Your task to perform on an android device: Go to battery settings Image 0: 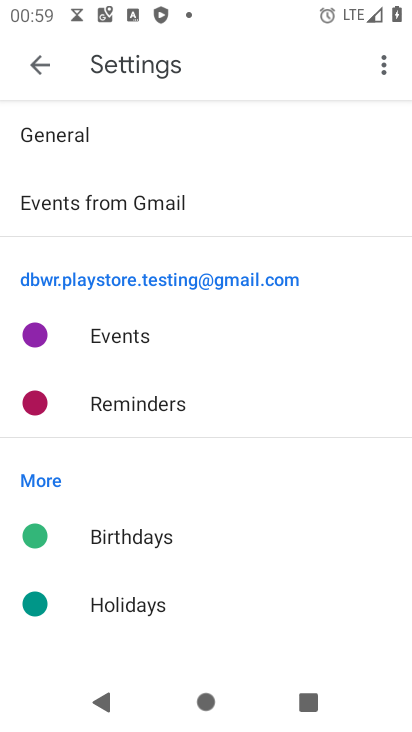
Step 0: press home button
Your task to perform on an android device: Go to battery settings Image 1: 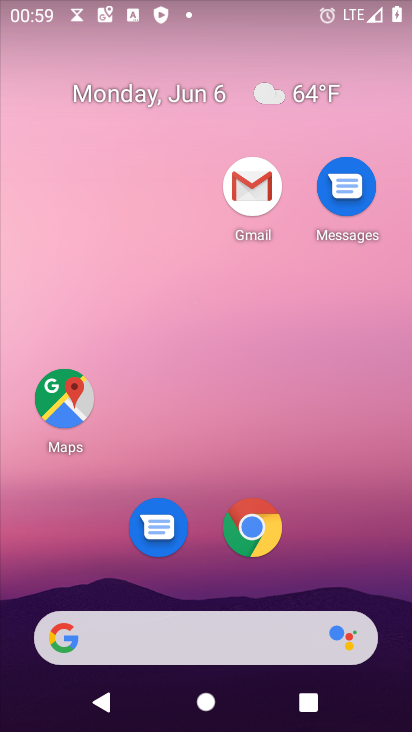
Step 1: drag from (347, 522) to (317, 0)
Your task to perform on an android device: Go to battery settings Image 2: 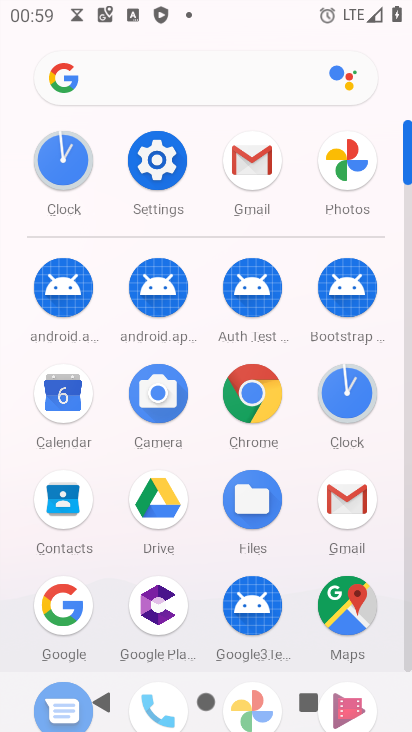
Step 2: click (167, 157)
Your task to perform on an android device: Go to battery settings Image 3: 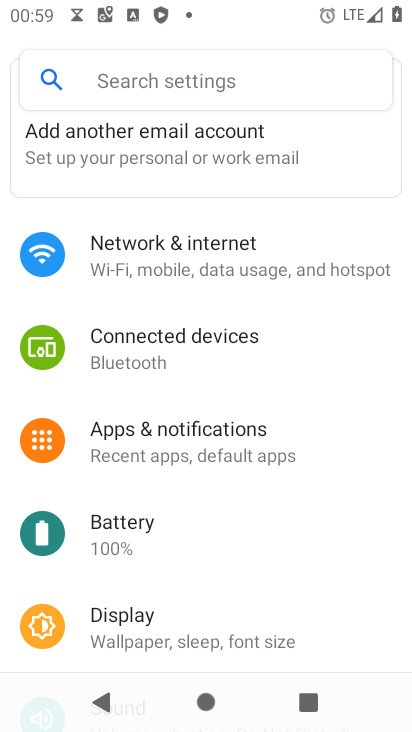
Step 3: click (236, 542)
Your task to perform on an android device: Go to battery settings Image 4: 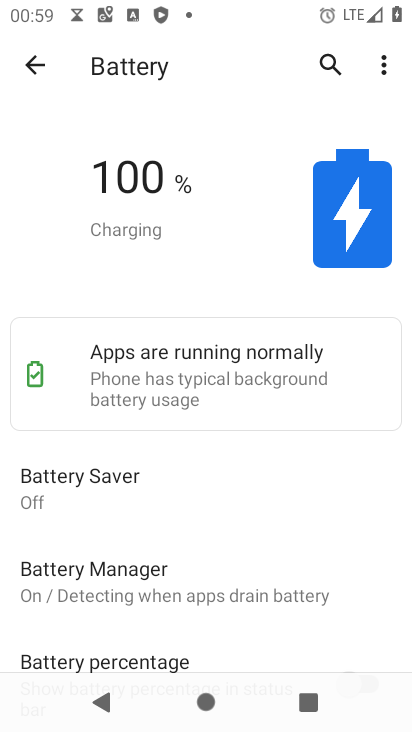
Step 4: task complete